Your task to perform on an android device: Go to battery settings Image 0: 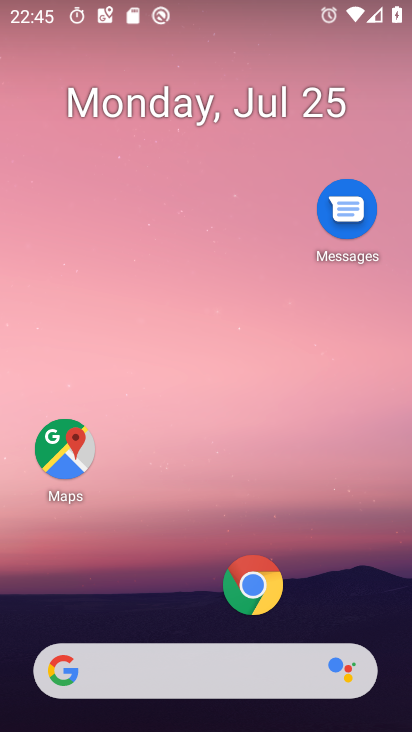
Step 0: drag from (175, 681) to (271, 81)
Your task to perform on an android device: Go to battery settings Image 1: 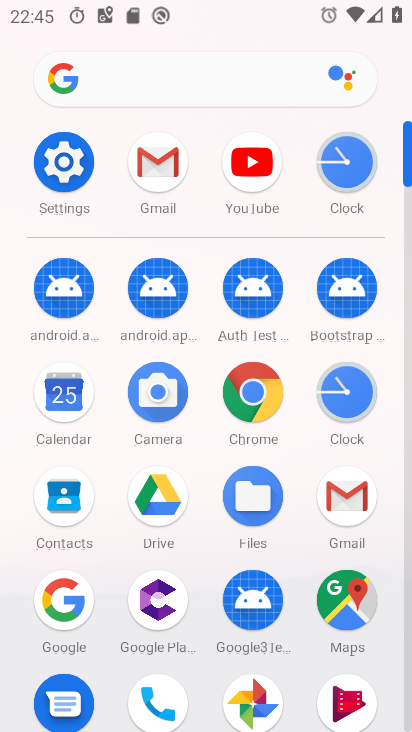
Step 1: click (67, 157)
Your task to perform on an android device: Go to battery settings Image 2: 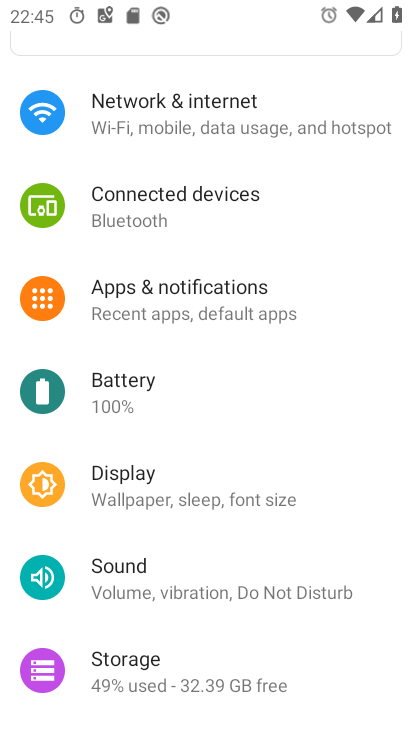
Step 2: click (131, 379)
Your task to perform on an android device: Go to battery settings Image 3: 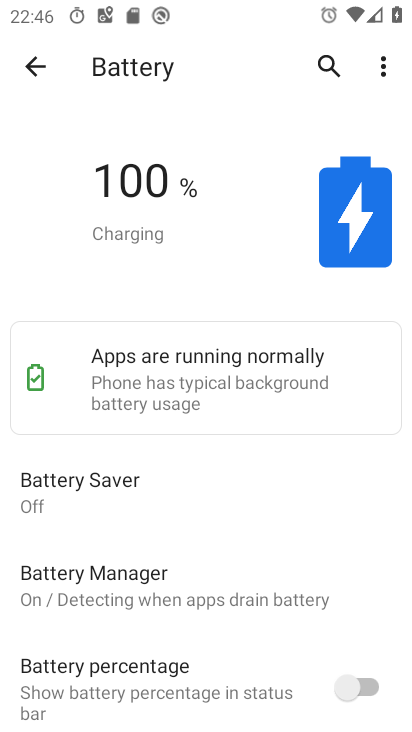
Step 3: task complete